Your task to perform on an android device: Open CNN.com Image 0: 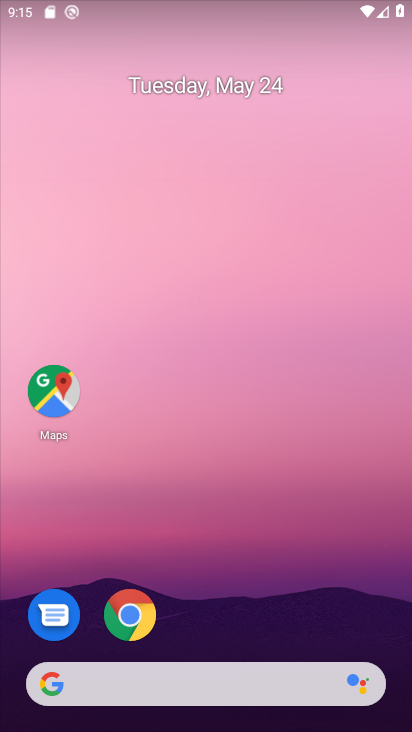
Step 0: drag from (373, 620) to (341, 233)
Your task to perform on an android device: Open CNN.com Image 1: 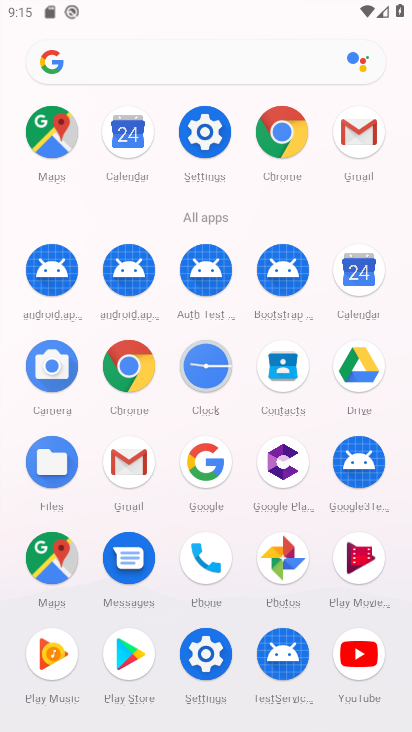
Step 1: click (144, 377)
Your task to perform on an android device: Open CNN.com Image 2: 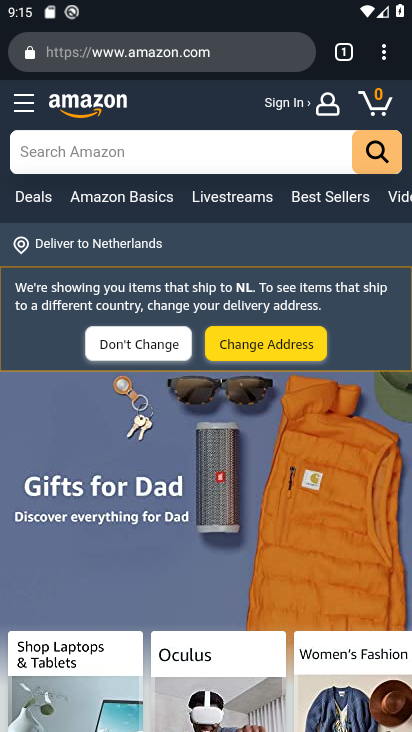
Step 2: press back button
Your task to perform on an android device: Open CNN.com Image 3: 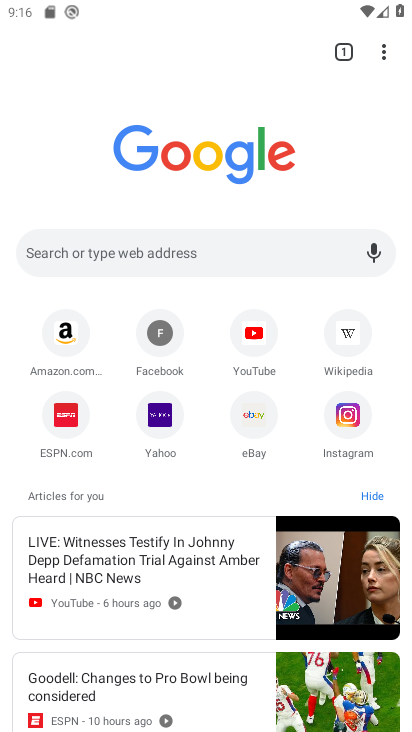
Step 3: click (223, 244)
Your task to perform on an android device: Open CNN.com Image 4: 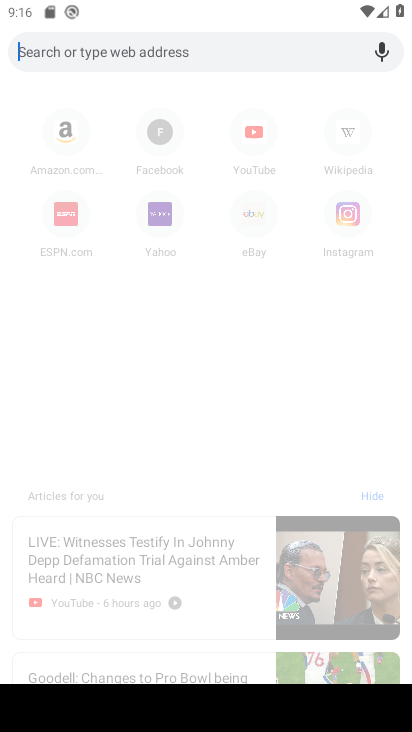
Step 4: type "cnn.com"
Your task to perform on an android device: Open CNN.com Image 5: 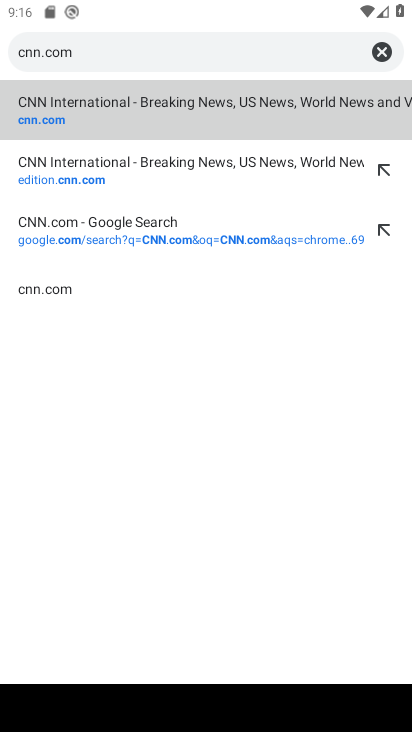
Step 5: click (73, 291)
Your task to perform on an android device: Open CNN.com Image 6: 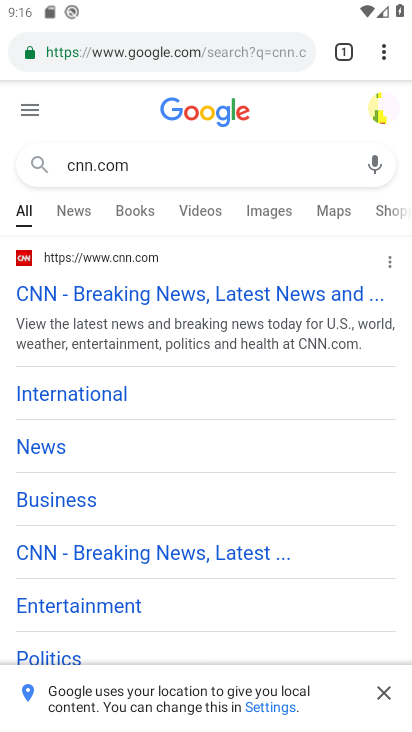
Step 6: task complete